Your task to perform on an android device: turn off javascript in the chrome app Image 0: 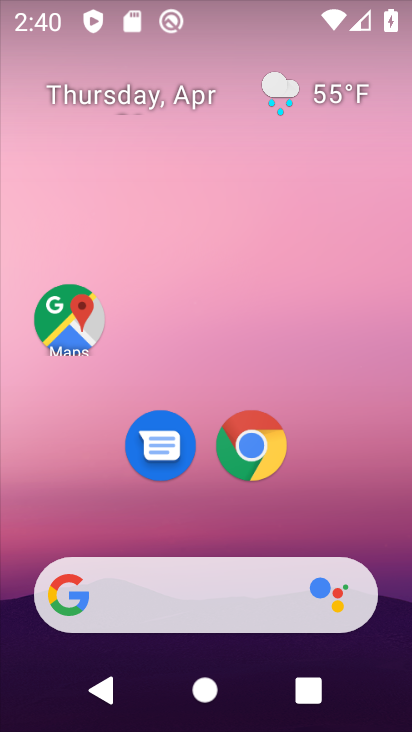
Step 0: click (249, 442)
Your task to perform on an android device: turn off javascript in the chrome app Image 1: 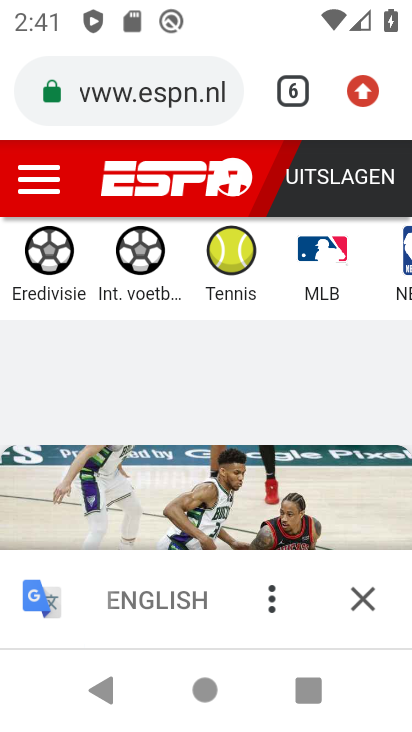
Step 1: drag from (363, 87) to (190, 458)
Your task to perform on an android device: turn off javascript in the chrome app Image 2: 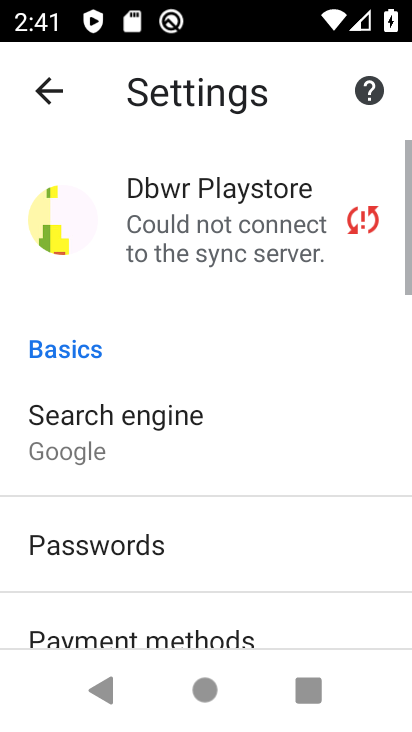
Step 2: drag from (192, 620) to (225, 255)
Your task to perform on an android device: turn off javascript in the chrome app Image 3: 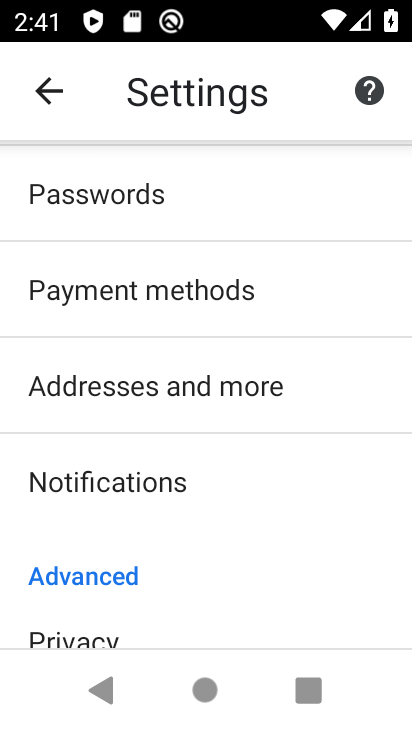
Step 3: drag from (214, 616) to (221, 236)
Your task to perform on an android device: turn off javascript in the chrome app Image 4: 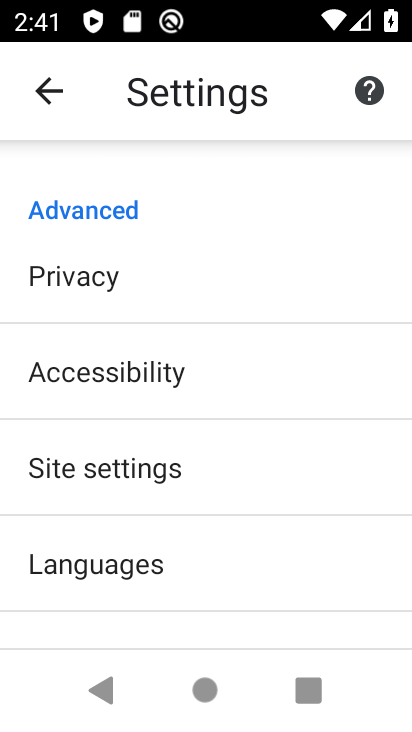
Step 4: click (133, 467)
Your task to perform on an android device: turn off javascript in the chrome app Image 5: 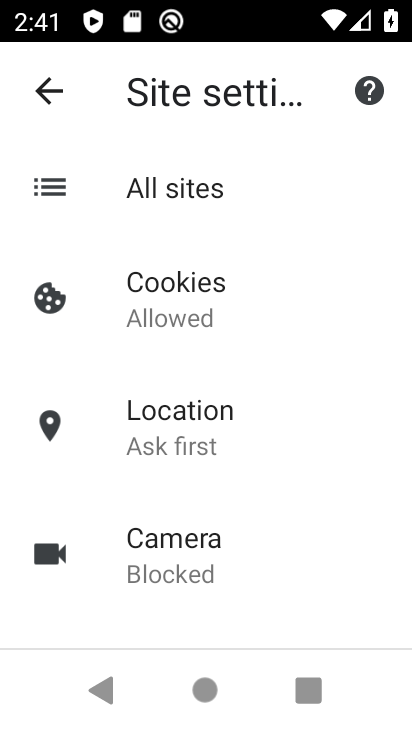
Step 5: drag from (217, 616) to (246, 298)
Your task to perform on an android device: turn off javascript in the chrome app Image 6: 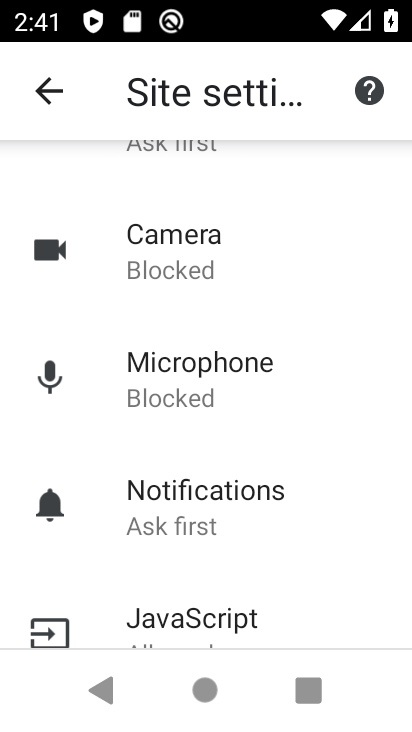
Step 6: click (216, 615)
Your task to perform on an android device: turn off javascript in the chrome app Image 7: 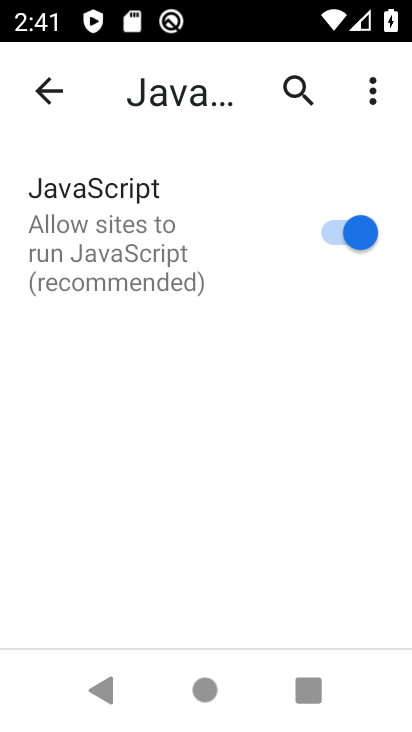
Step 7: click (338, 235)
Your task to perform on an android device: turn off javascript in the chrome app Image 8: 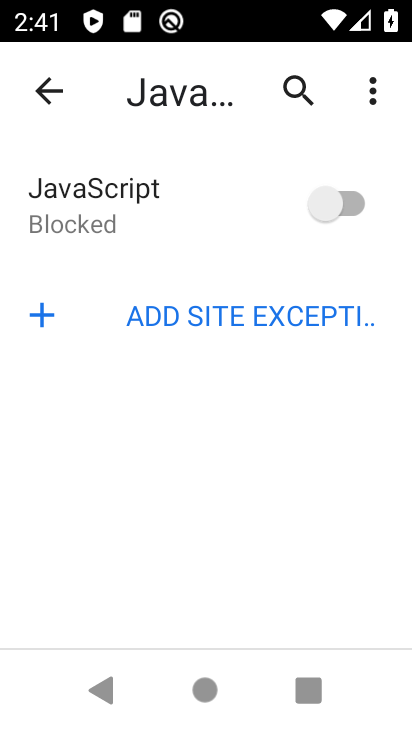
Step 8: task complete